Your task to perform on an android device: read, delete, or share a saved page in the chrome app Image 0: 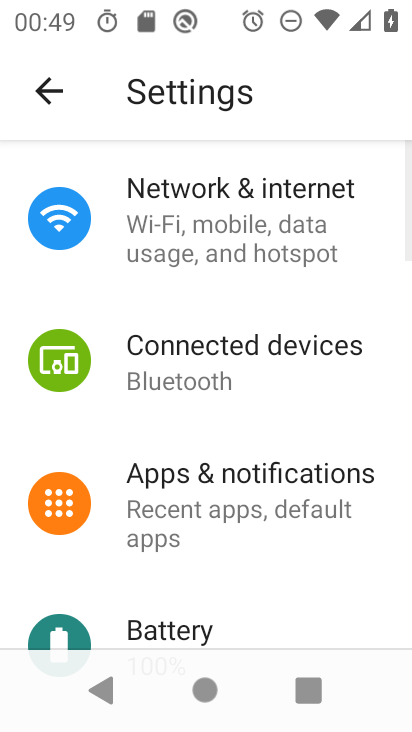
Step 0: press home button
Your task to perform on an android device: read, delete, or share a saved page in the chrome app Image 1: 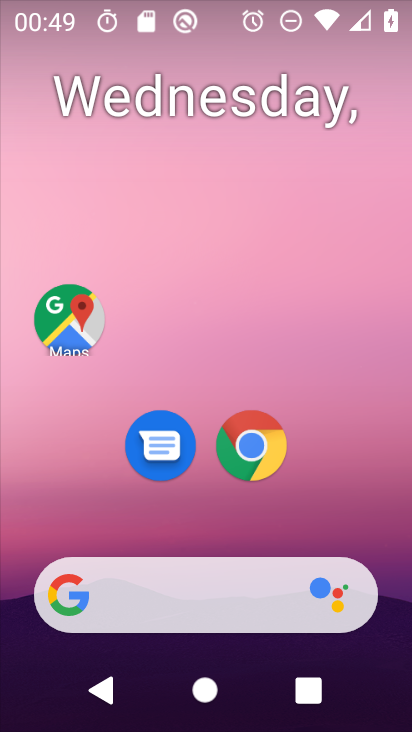
Step 1: drag from (203, 536) to (337, 55)
Your task to perform on an android device: read, delete, or share a saved page in the chrome app Image 2: 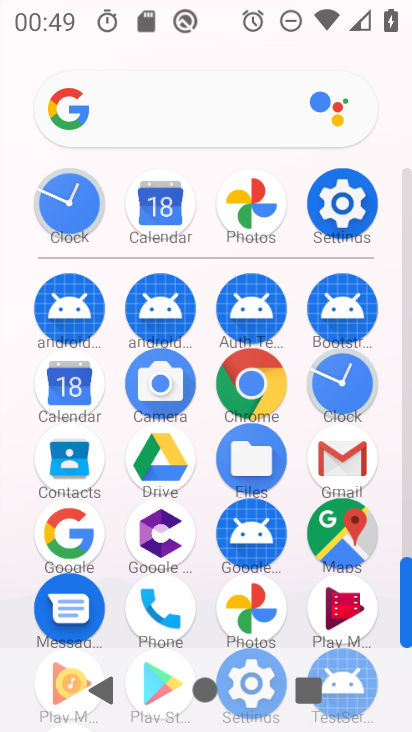
Step 2: click (254, 374)
Your task to perform on an android device: read, delete, or share a saved page in the chrome app Image 3: 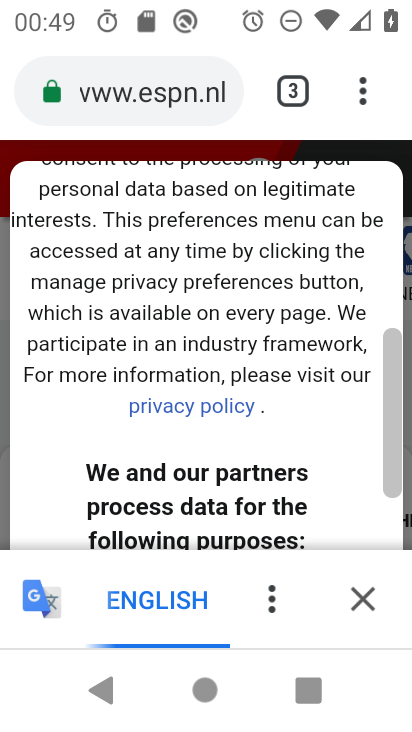
Step 3: click (350, 87)
Your task to perform on an android device: read, delete, or share a saved page in the chrome app Image 4: 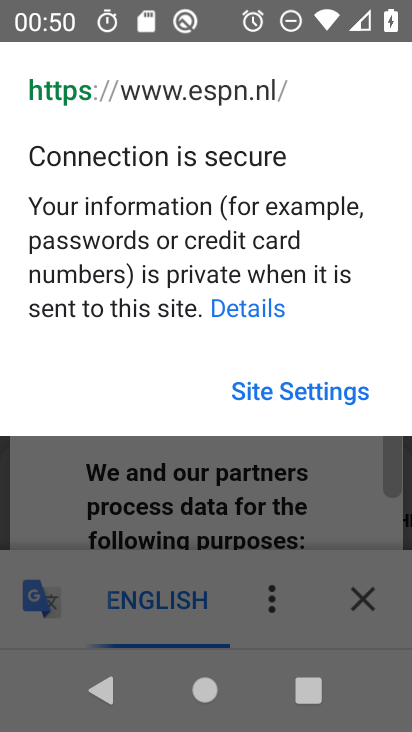
Step 4: press back button
Your task to perform on an android device: read, delete, or share a saved page in the chrome app Image 5: 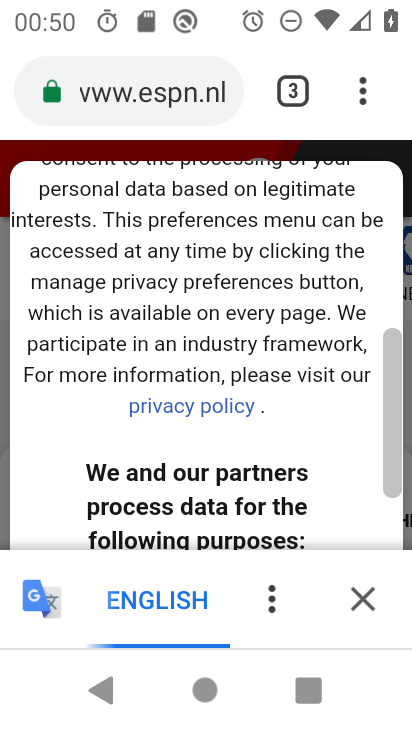
Step 5: click (379, 78)
Your task to perform on an android device: read, delete, or share a saved page in the chrome app Image 6: 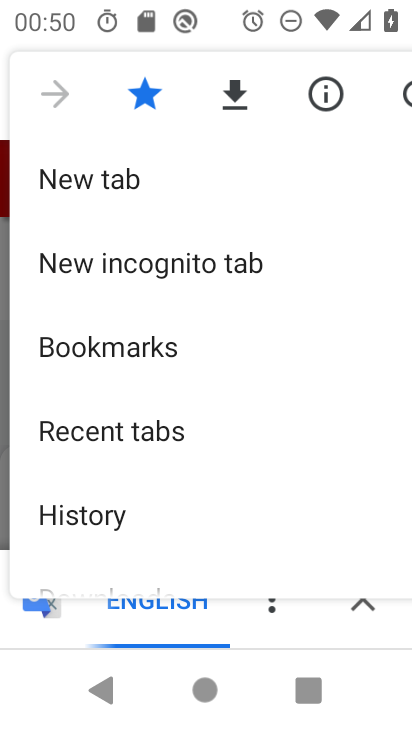
Step 6: drag from (116, 521) to (150, 251)
Your task to perform on an android device: read, delete, or share a saved page in the chrome app Image 7: 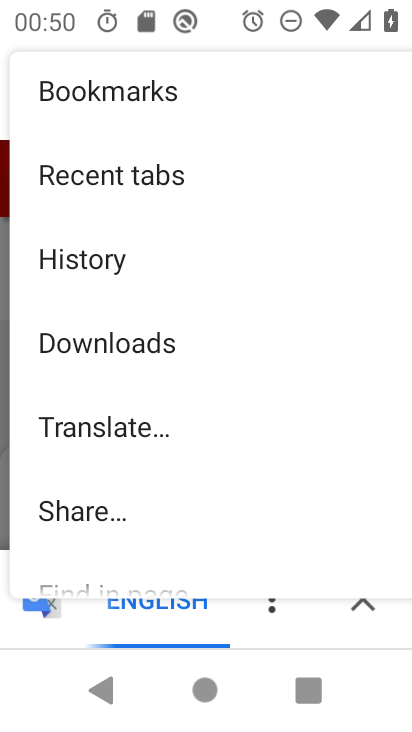
Step 7: click (138, 350)
Your task to perform on an android device: read, delete, or share a saved page in the chrome app Image 8: 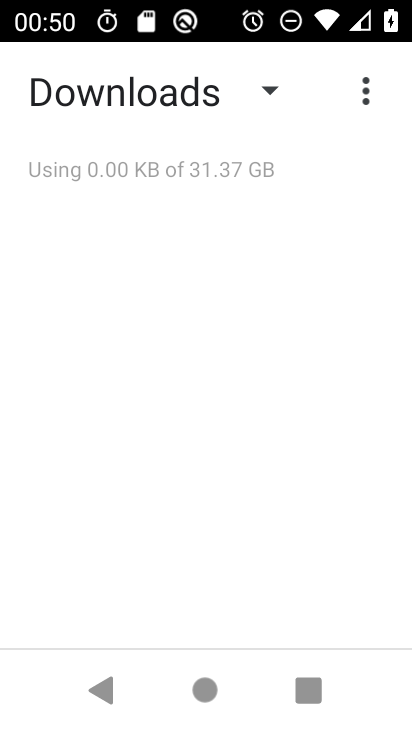
Step 8: click (282, 89)
Your task to perform on an android device: read, delete, or share a saved page in the chrome app Image 9: 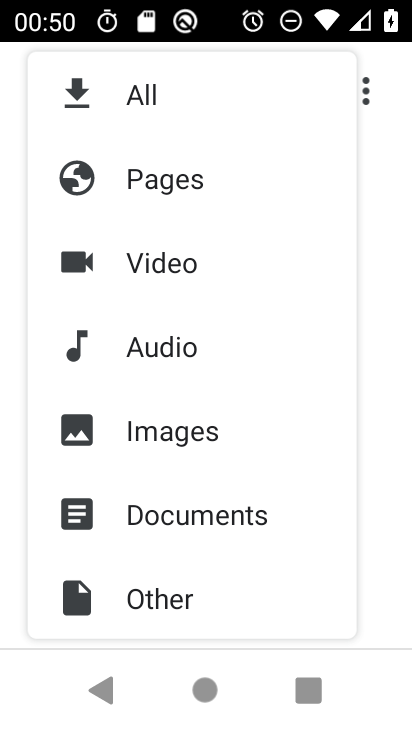
Step 9: click (184, 179)
Your task to perform on an android device: read, delete, or share a saved page in the chrome app Image 10: 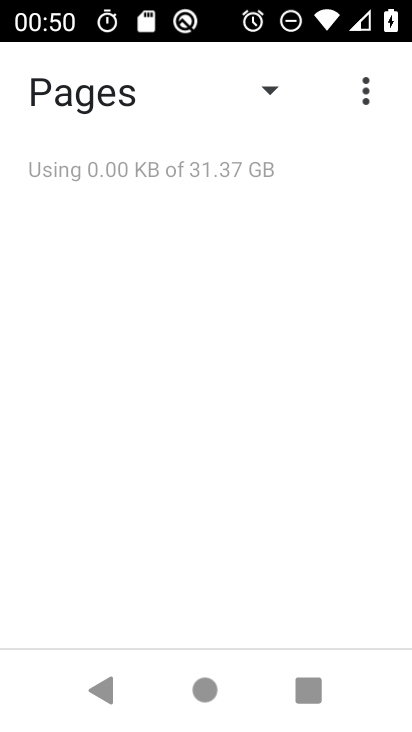
Step 10: task complete